Your task to perform on an android device: toggle wifi Image 0: 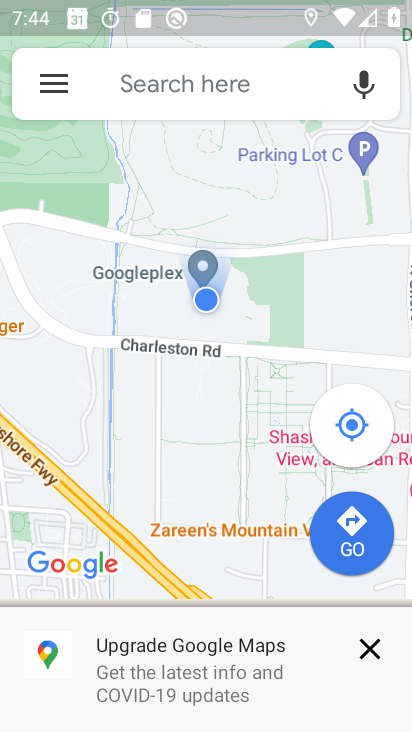
Step 0: press home button
Your task to perform on an android device: toggle wifi Image 1: 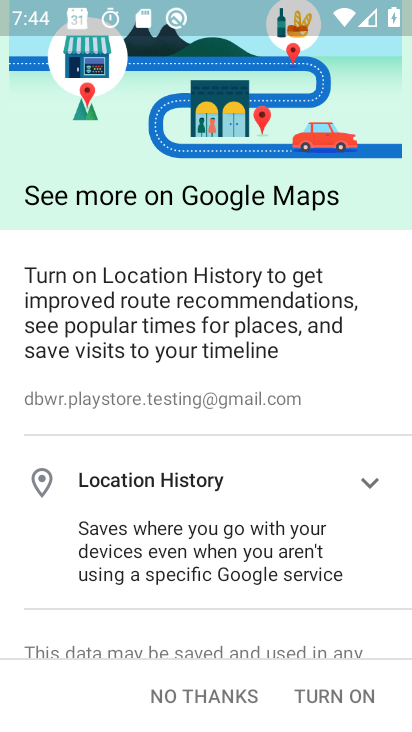
Step 1: press home button
Your task to perform on an android device: toggle wifi Image 2: 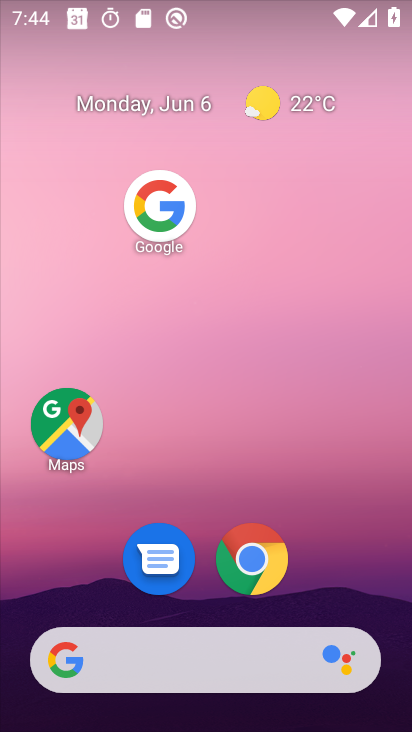
Step 2: drag from (205, 613) to (204, 173)
Your task to perform on an android device: toggle wifi Image 3: 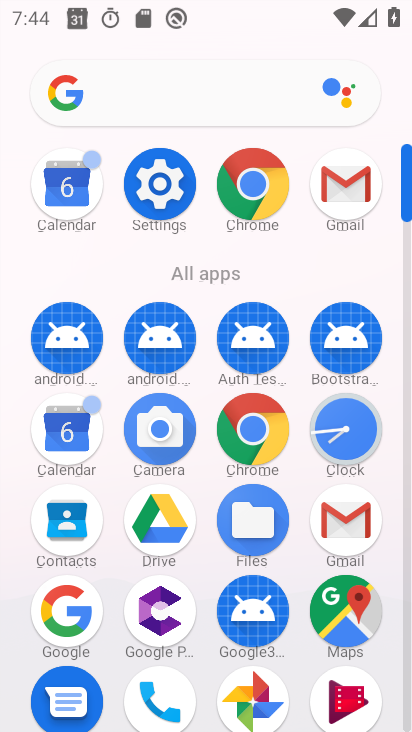
Step 3: click (154, 183)
Your task to perform on an android device: toggle wifi Image 4: 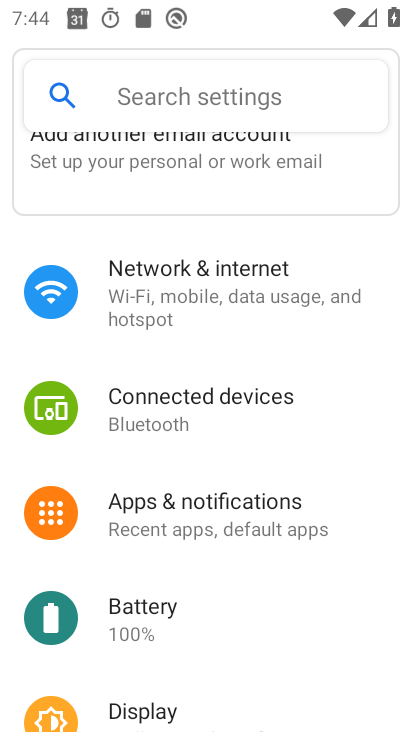
Step 4: click (207, 305)
Your task to perform on an android device: toggle wifi Image 5: 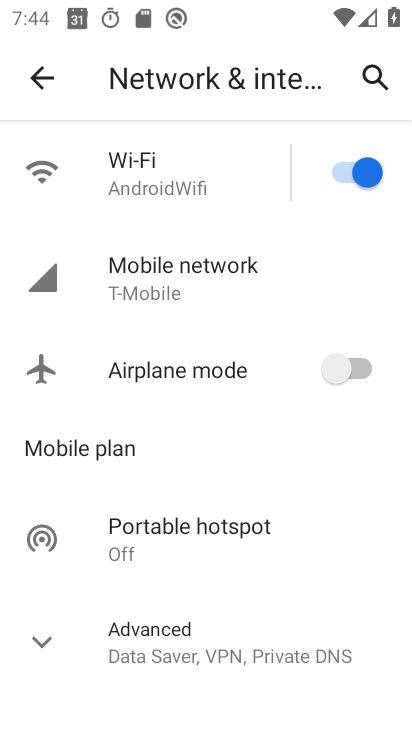
Step 5: click (353, 185)
Your task to perform on an android device: toggle wifi Image 6: 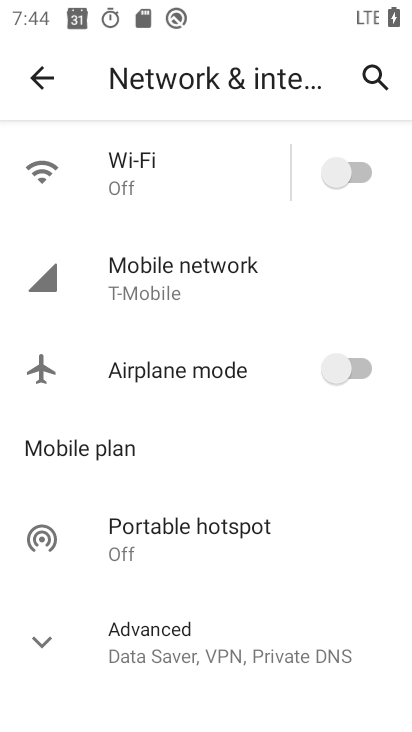
Step 6: click (353, 185)
Your task to perform on an android device: toggle wifi Image 7: 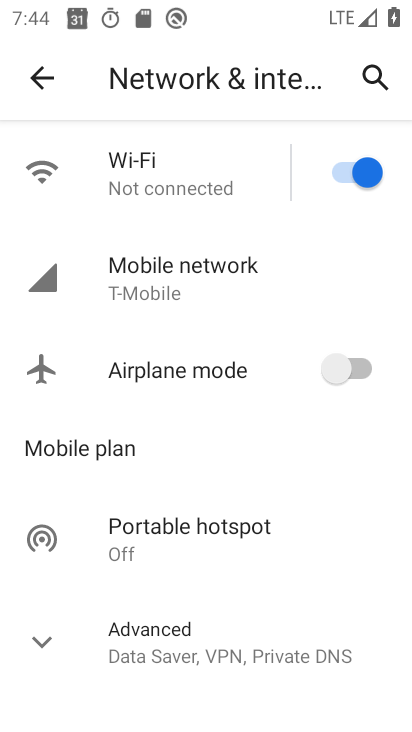
Step 7: task complete